Your task to perform on an android device: Search for Mexican restaurants on Maps Image 0: 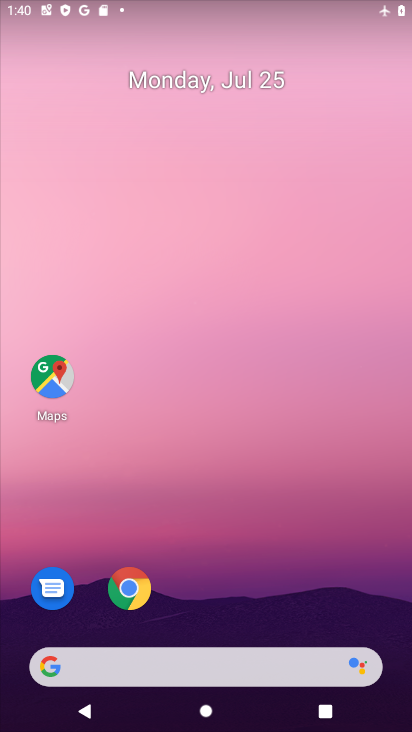
Step 0: click (47, 379)
Your task to perform on an android device: Search for Mexican restaurants on Maps Image 1: 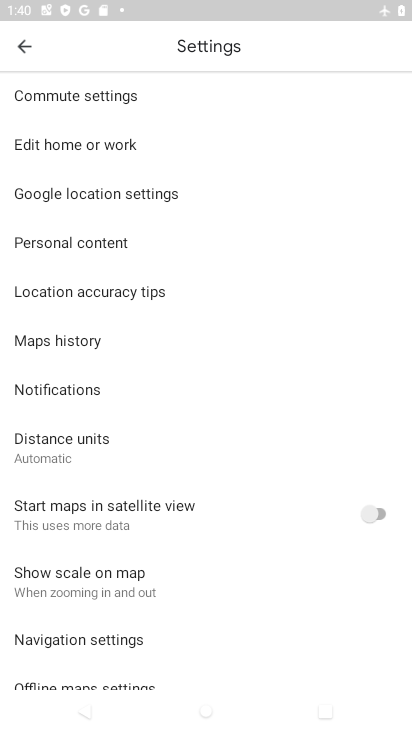
Step 1: click (22, 52)
Your task to perform on an android device: Search for Mexican restaurants on Maps Image 2: 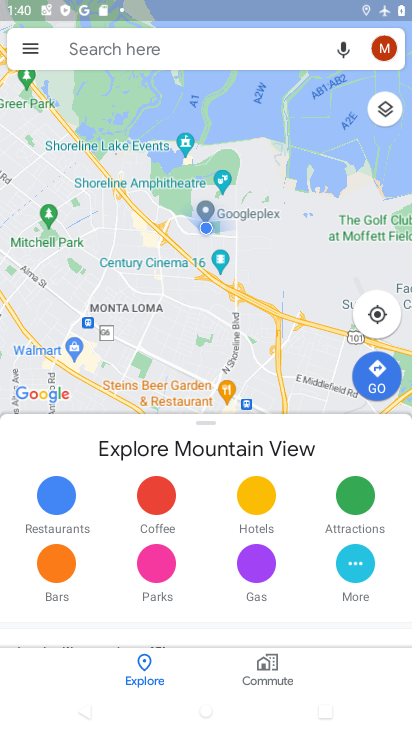
Step 2: click (135, 54)
Your task to perform on an android device: Search for Mexican restaurants on Maps Image 3: 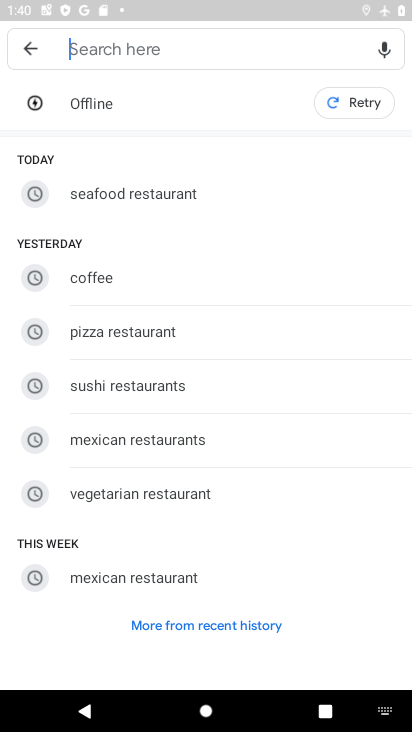
Step 3: click (134, 447)
Your task to perform on an android device: Search for Mexican restaurants on Maps Image 4: 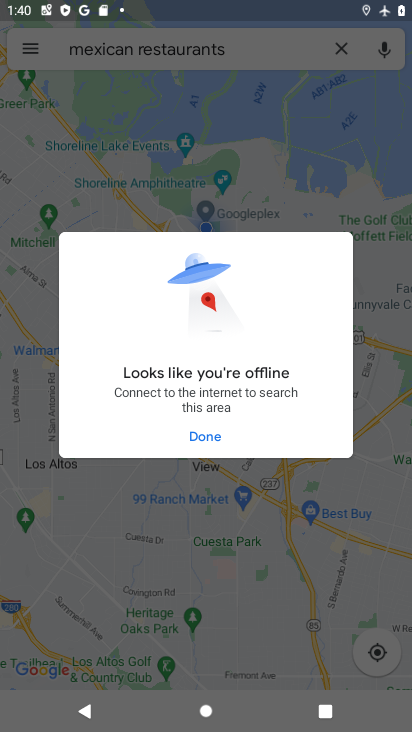
Step 4: task complete